Your task to perform on an android device: open app "Chime – Mobile Banking" Image 0: 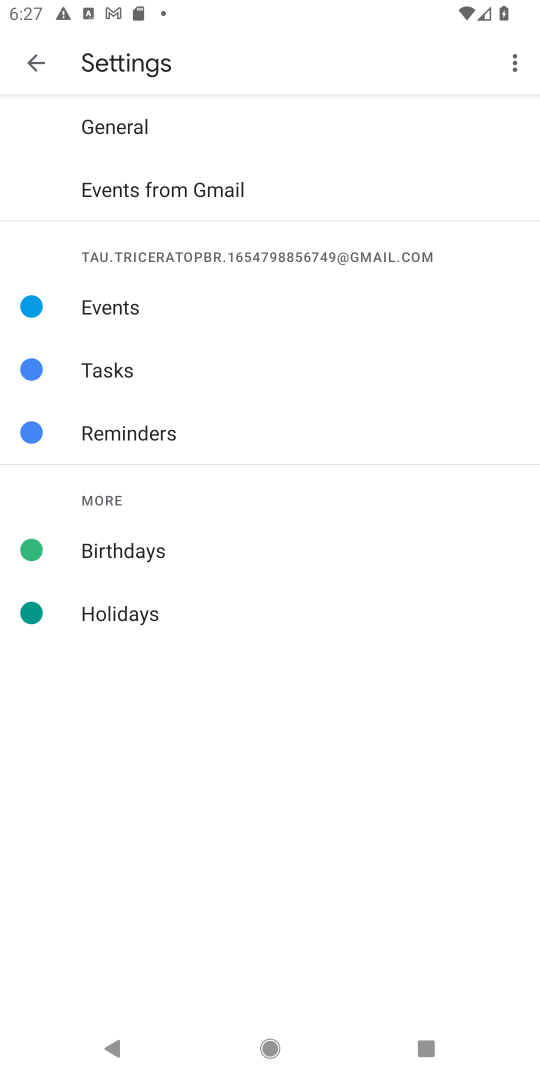
Step 0: press home button
Your task to perform on an android device: open app "Chime – Mobile Banking" Image 1: 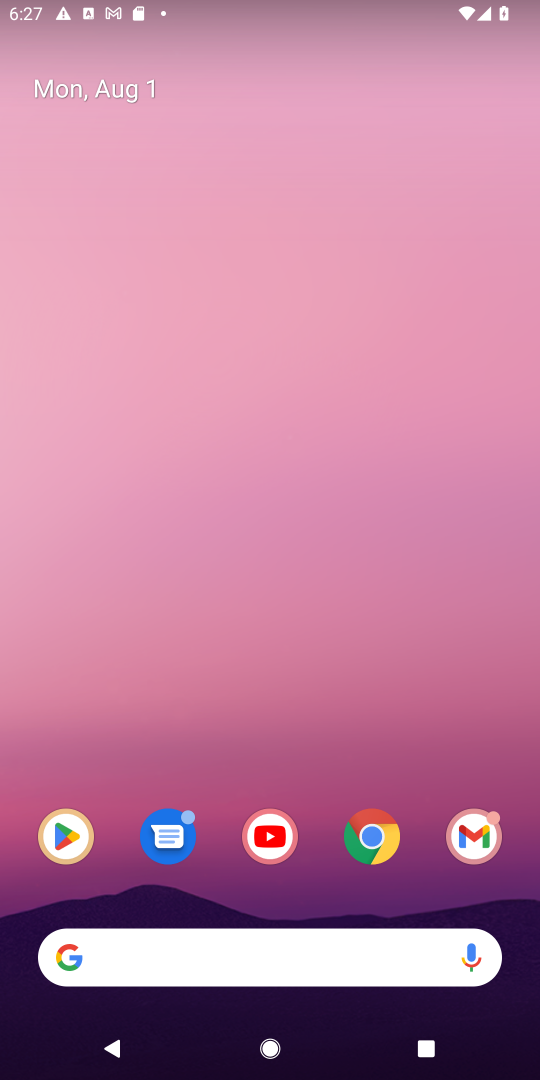
Step 1: click (65, 823)
Your task to perform on an android device: open app "Chime – Mobile Banking" Image 2: 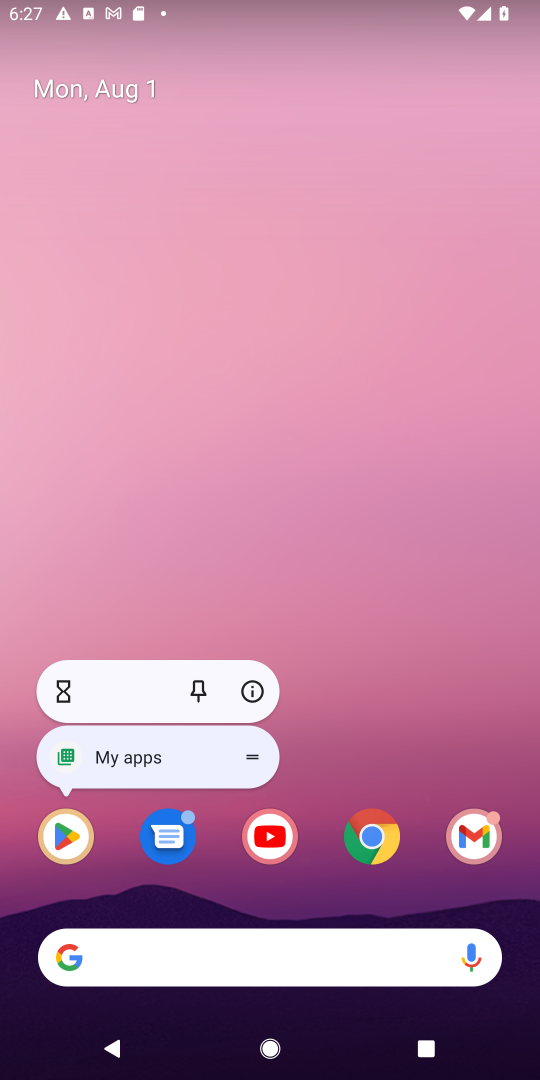
Step 2: click (57, 841)
Your task to perform on an android device: open app "Chime – Mobile Banking" Image 3: 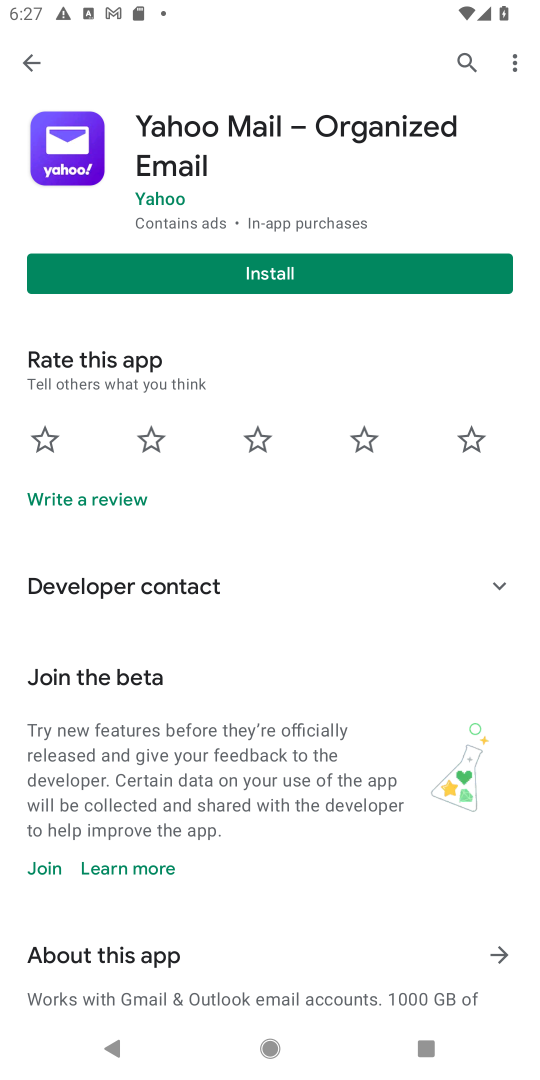
Step 3: click (469, 56)
Your task to perform on an android device: open app "Chime – Mobile Banking" Image 4: 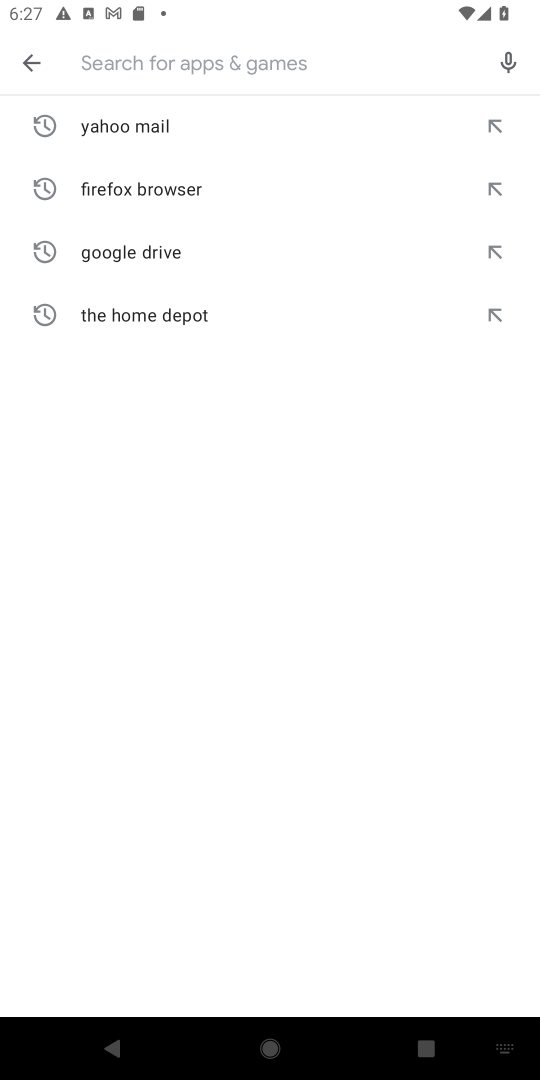
Step 4: type "Chime – Mobile Banking"
Your task to perform on an android device: open app "Chime – Mobile Banking" Image 5: 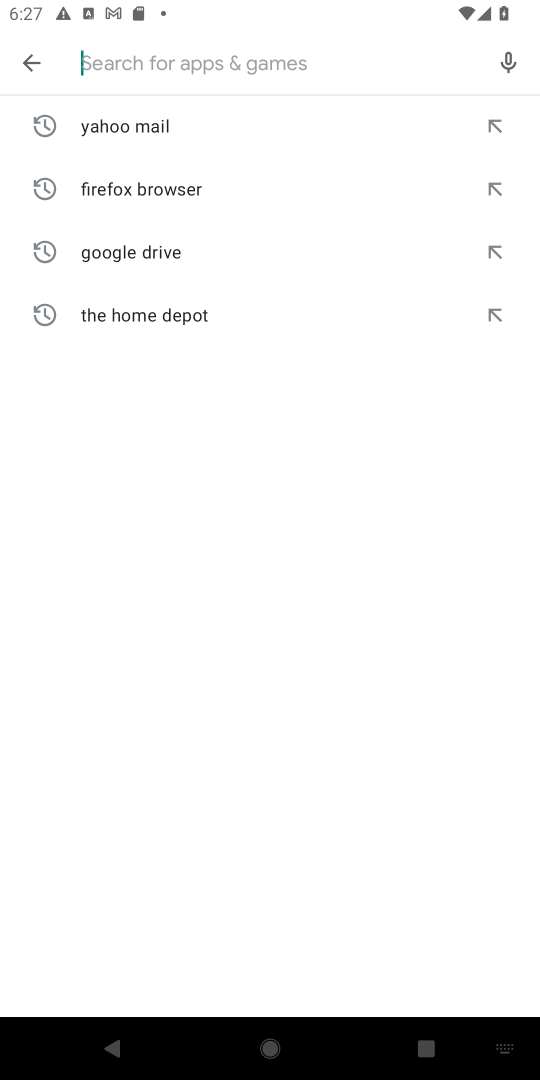
Step 5: type "Chime Mobile Banking"
Your task to perform on an android device: open app "Chime – Mobile Banking" Image 6: 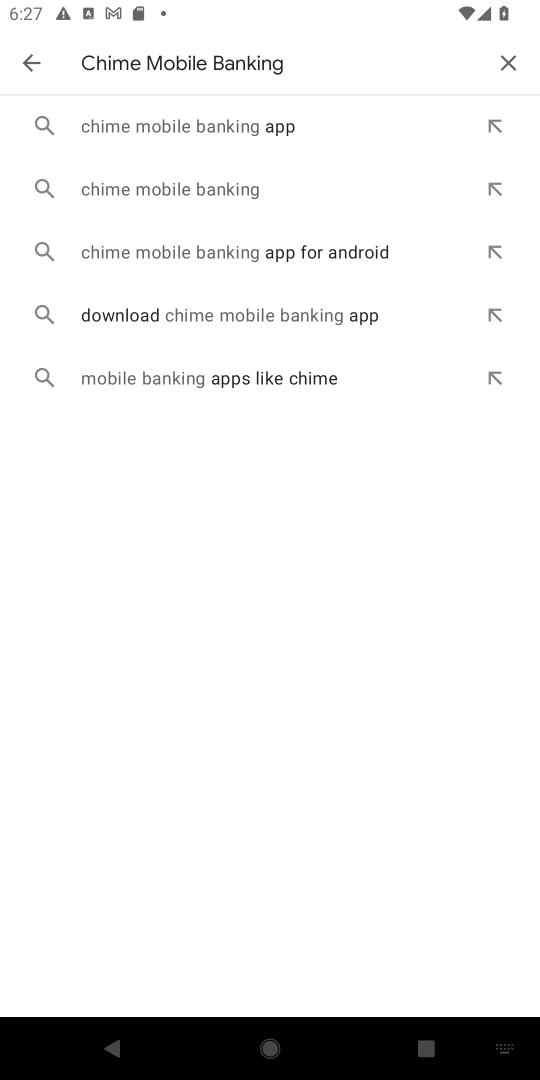
Step 6: click (200, 117)
Your task to perform on an android device: open app "Chime – Mobile Banking" Image 7: 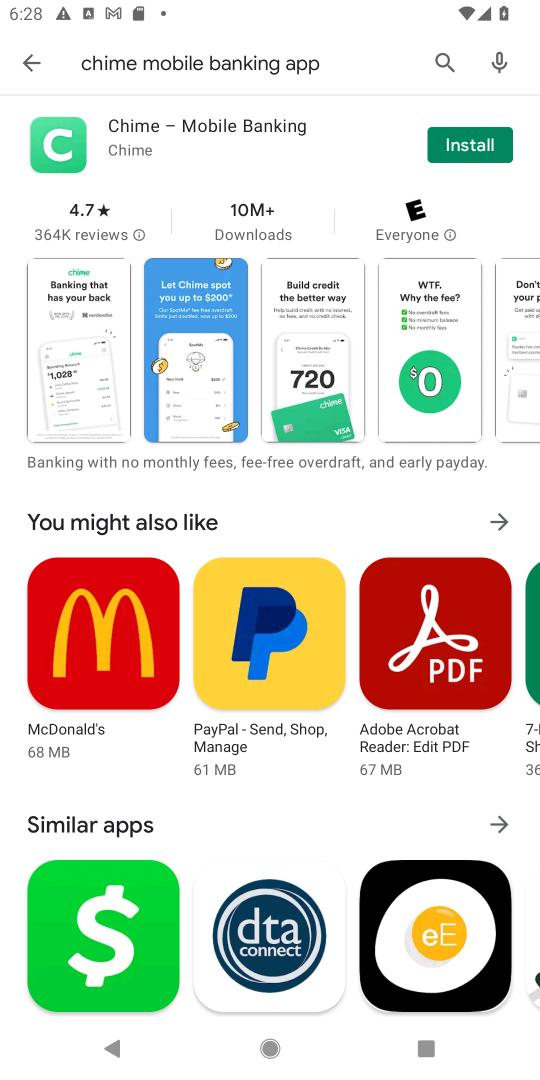
Step 7: task complete